Your task to perform on an android device: Open accessibility settings Image 0: 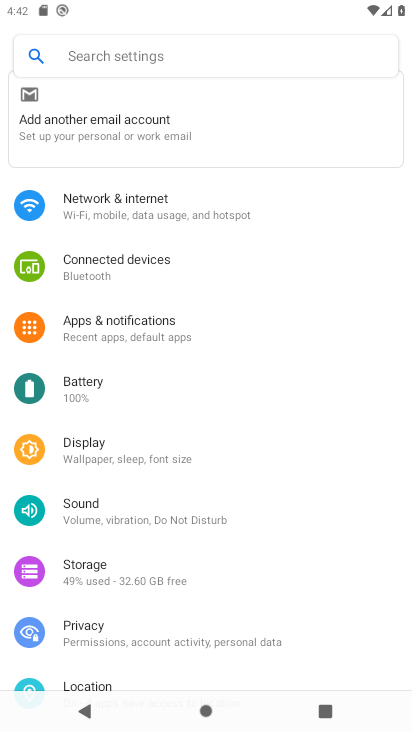
Step 0: press back button
Your task to perform on an android device: Open accessibility settings Image 1: 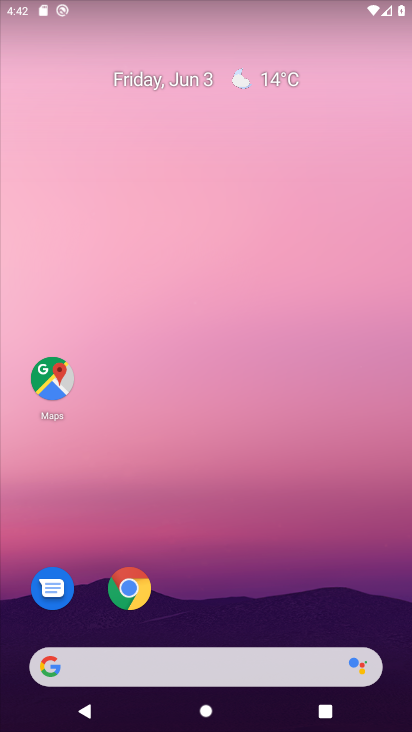
Step 1: drag from (317, 567) to (233, 5)
Your task to perform on an android device: Open accessibility settings Image 2: 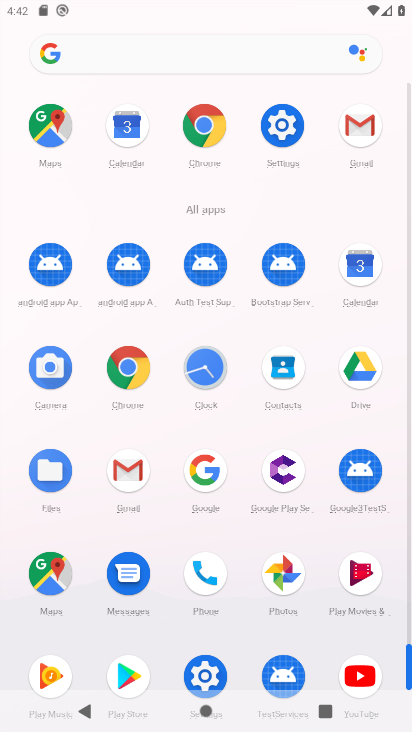
Step 2: click (203, 670)
Your task to perform on an android device: Open accessibility settings Image 3: 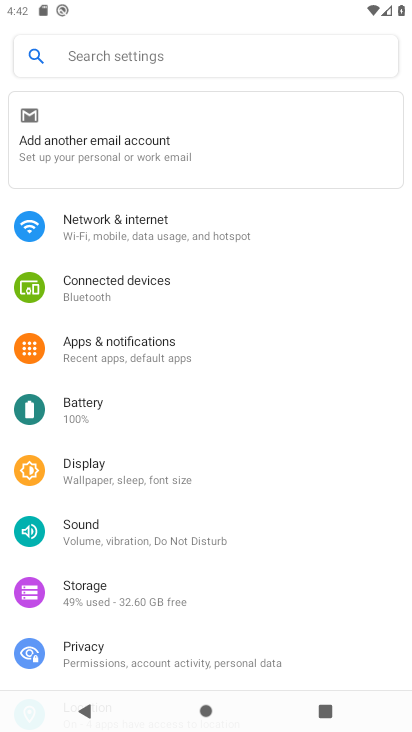
Step 3: drag from (205, 541) to (208, 201)
Your task to perform on an android device: Open accessibility settings Image 4: 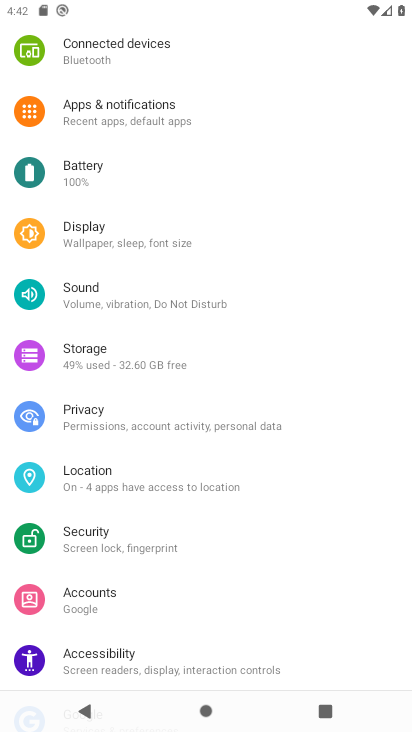
Step 4: drag from (202, 534) to (213, 177)
Your task to perform on an android device: Open accessibility settings Image 5: 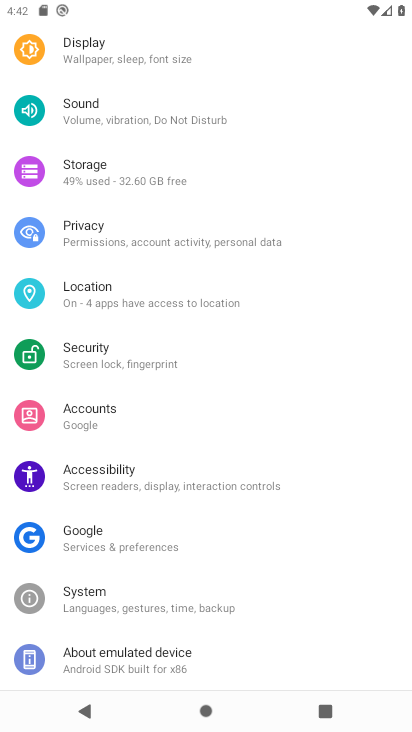
Step 5: click (152, 478)
Your task to perform on an android device: Open accessibility settings Image 6: 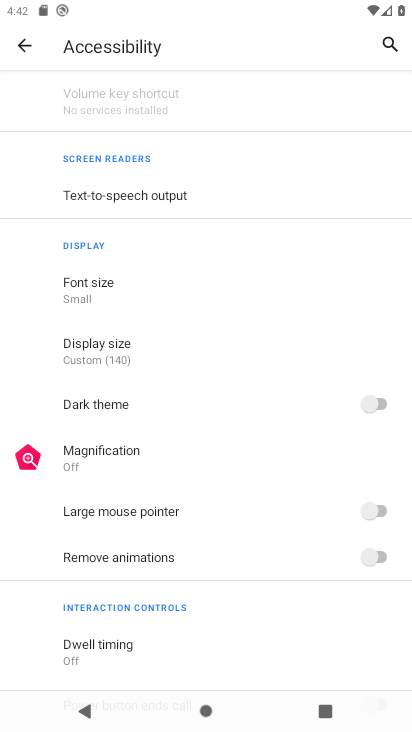
Step 6: task complete